Your task to perform on an android device: move a message to another label in the gmail app Image 0: 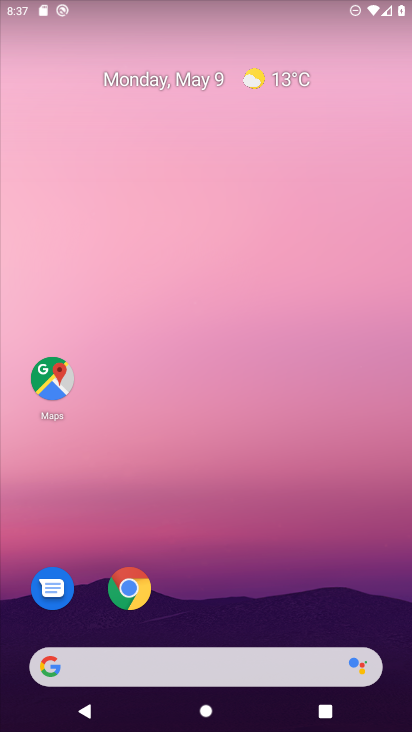
Step 0: drag from (241, 604) to (232, 237)
Your task to perform on an android device: move a message to another label in the gmail app Image 1: 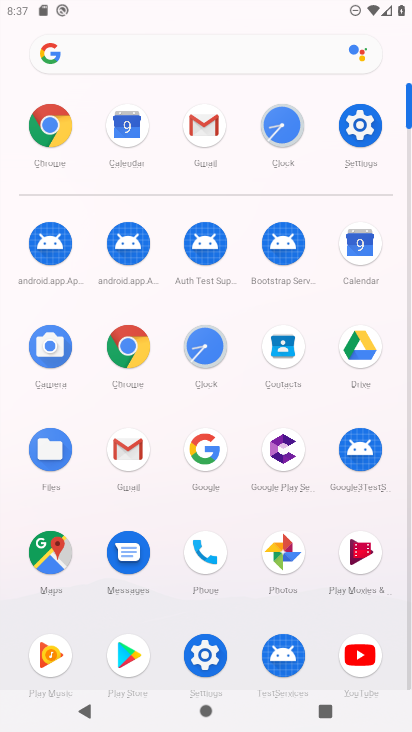
Step 1: click (209, 123)
Your task to perform on an android device: move a message to another label in the gmail app Image 2: 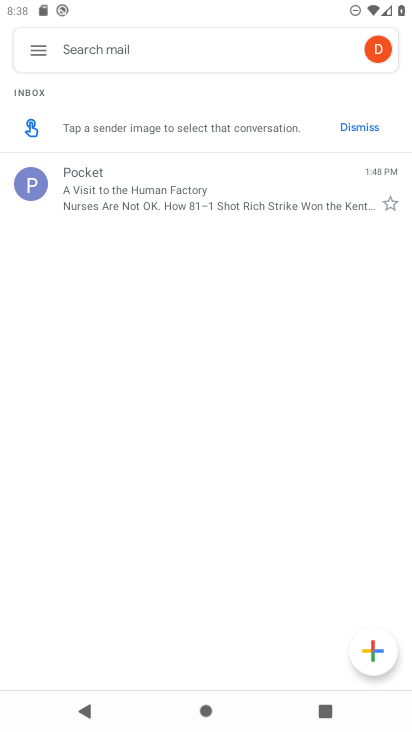
Step 2: click (222, 178)
Your task to perform on an android device: move a message to another label in the gmail app Image 3: 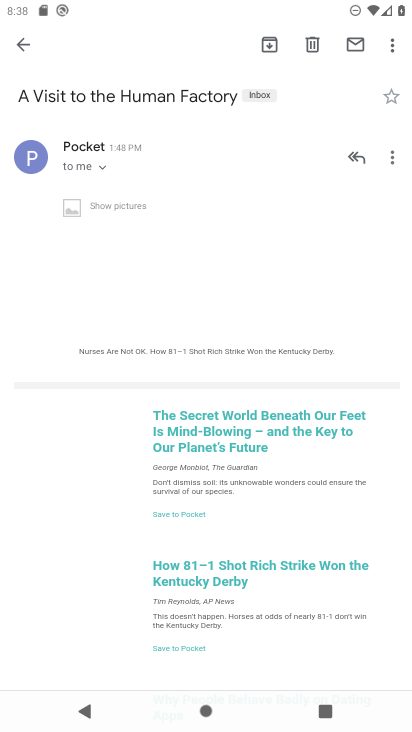
Step 3: click (389, 54)
Your task to perform on an android device: move a message to another label in the gmail app Image 4: 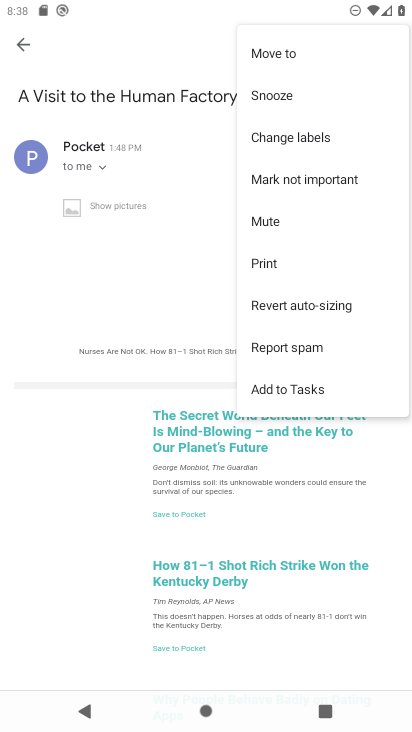
Step 4: click (318, 122)
Your task to perform on an android device: move a message to another label in the gmail app Image 5: 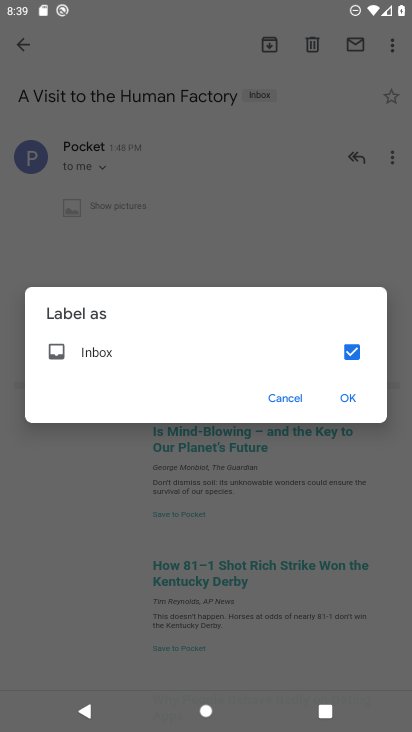
Step 5: click (353, 386)
Your task to perform on an android device: move a message to another label in the gmail app Image 6: 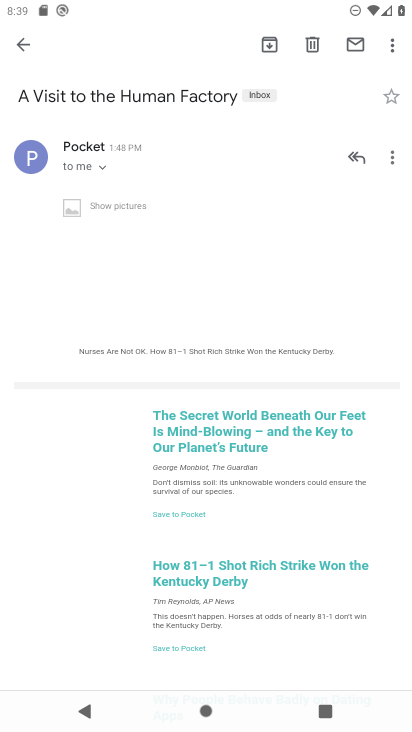
Step 6: task complete